Your task to perform on an android device: Go to Reddit.com Image 0: 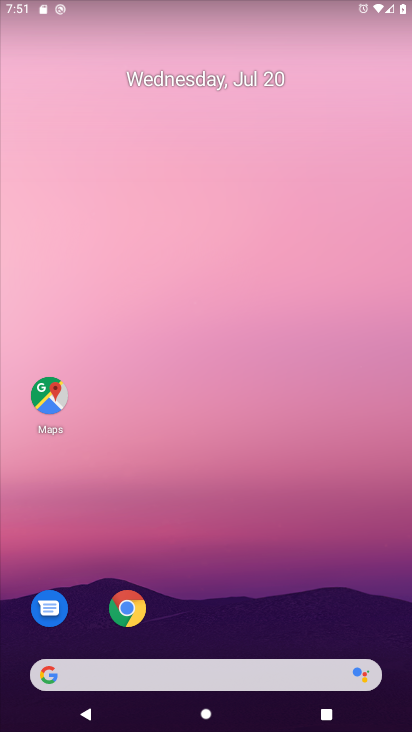
Step 0: drag from (208, 592) to (162, 175)
Your task to perform on an android device: Go to Reddit.com Image 1: 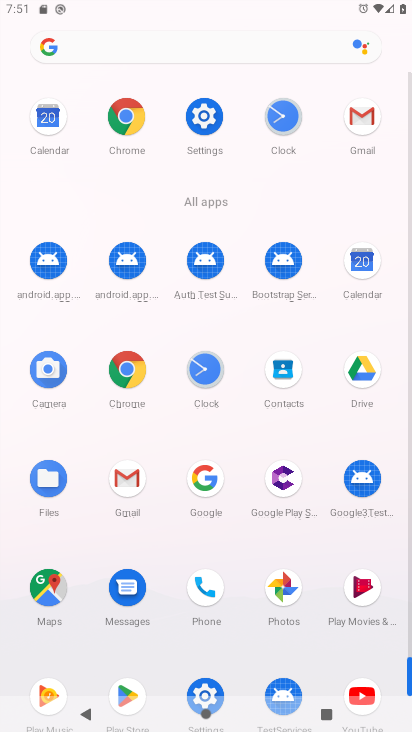
Step 1: click (120, 116)
Your task to perform on an android device: Go to Reddit.com Image 2: 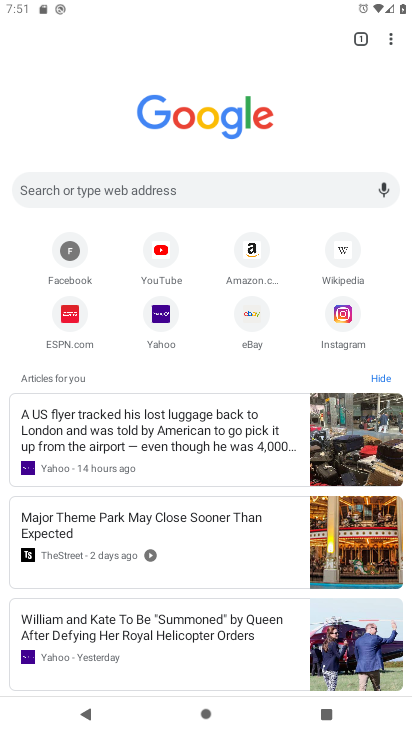
Step 2: click (139, 184)
Your task to perform on an android device: Go to Reddit.com Image 3: 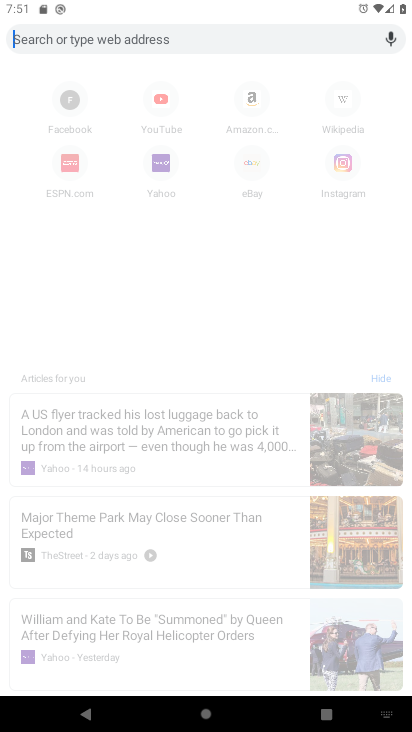
Step 3: type "Reddit.com "
Your task to perform on an android device: Go to Reddit.com Image 4: 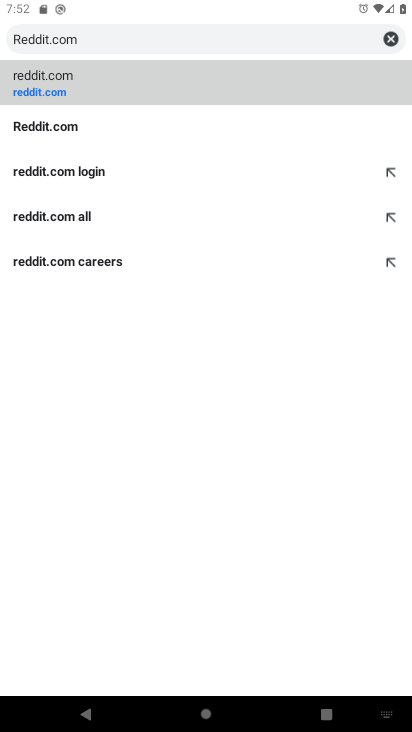
Step 4: click (105, 71)
Your task to perform on an android device: Go to Reddit.com Image 5: 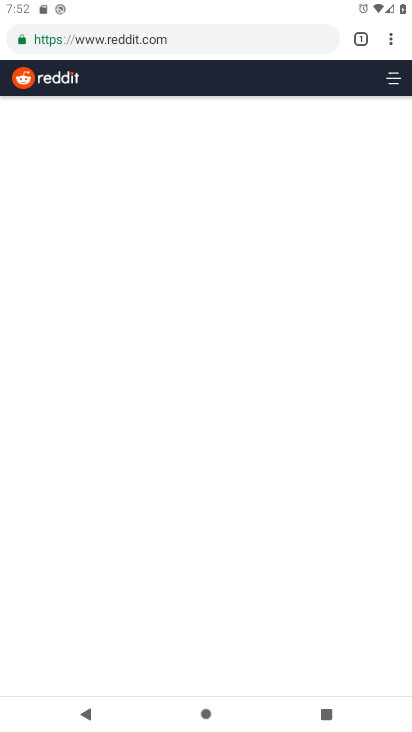
Step 5: task complete